Your task to perform on an android device: Search for seafood restaurants on Google Maps Image 0: 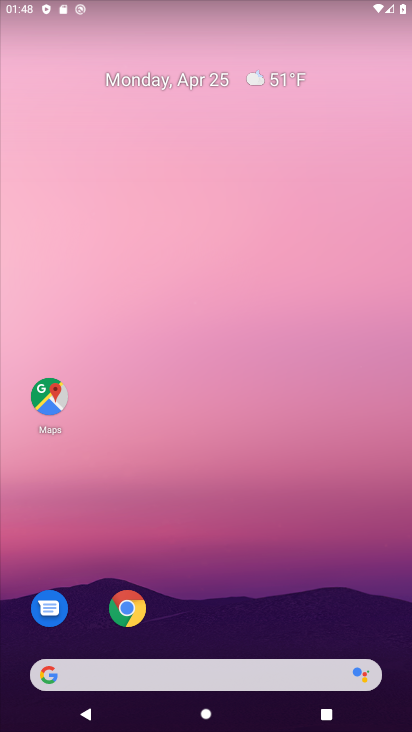
Step 0: click (51, 403)
Your task to perform on an android device: Search for seafood restaurants on Google Maps Image 1: 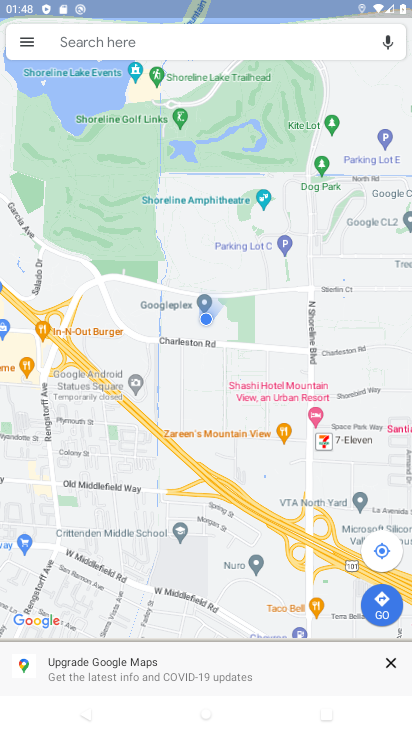
Step 1: click (200, 41)
Your task to perform on an android device: Search for seafood restaurants on Google Maps Image 2: 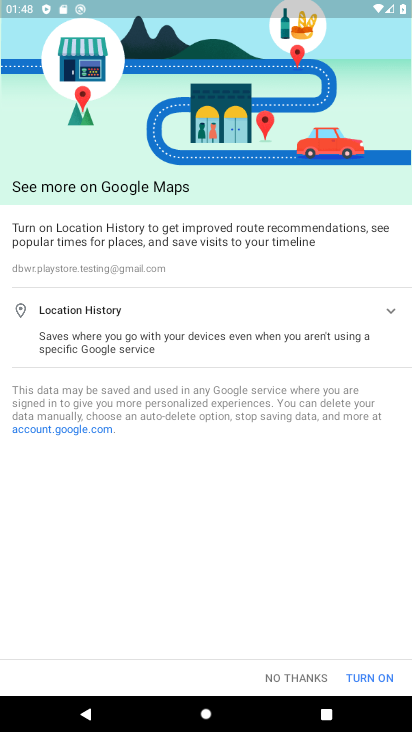
Step 2: click (363, 676)
Your task to perform on an android device: Search for seafood restaurants on Google Maps Image 3: 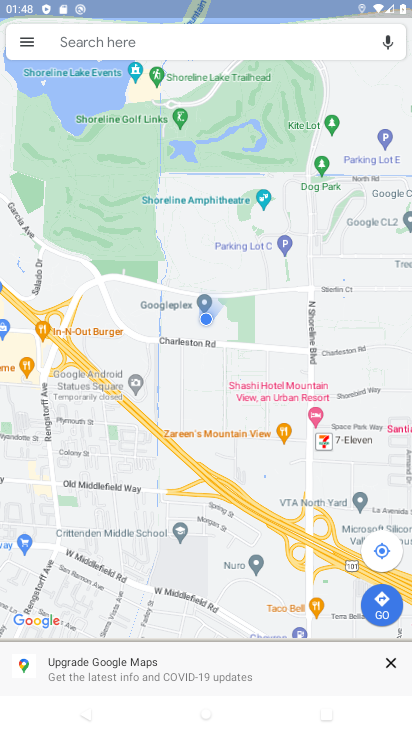
Step 3: click (99, 41)
Your task to perform on an android device: Search for seafood restaurants on Google Maps Image 4: 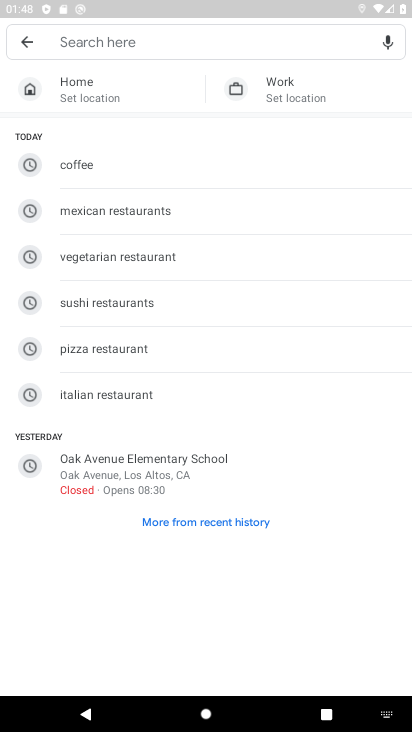
Step 4: type "seafood"
Your task to perform on an android device: Search for seafood restaurants on Google Maps Image 5: 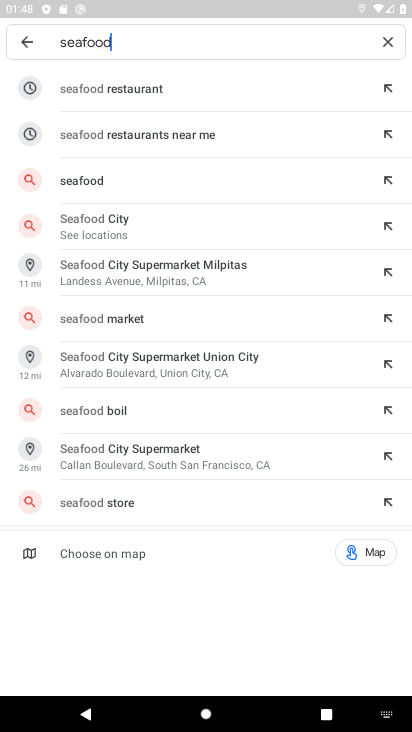
Step 5: click (162, 92)
Your task to perform on an android device: Search for seafood restaurants on Google Maps Image 6: 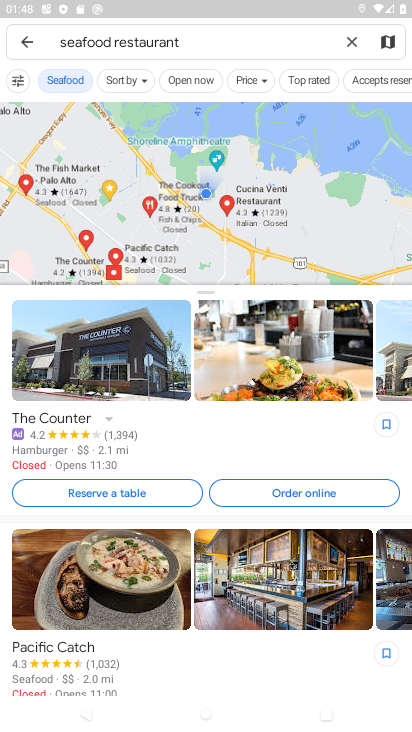
Step 6: task complete